Your task to perform on an android device: clear all cookies in the chrome app Image 0: 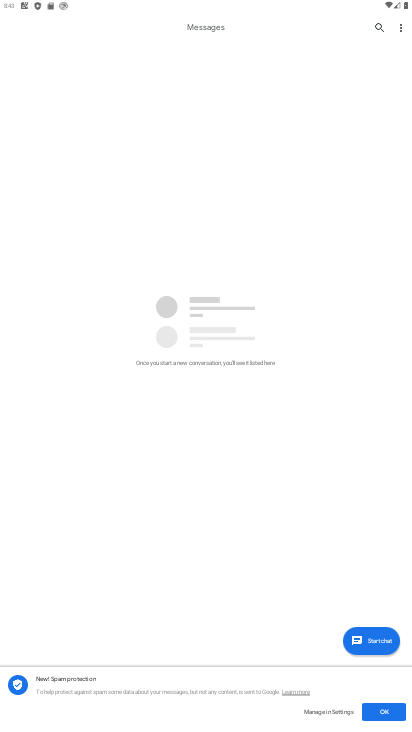
Step 0: press home button
Your task to perform on an android device: clear all cookies in the chrome app Image 1: 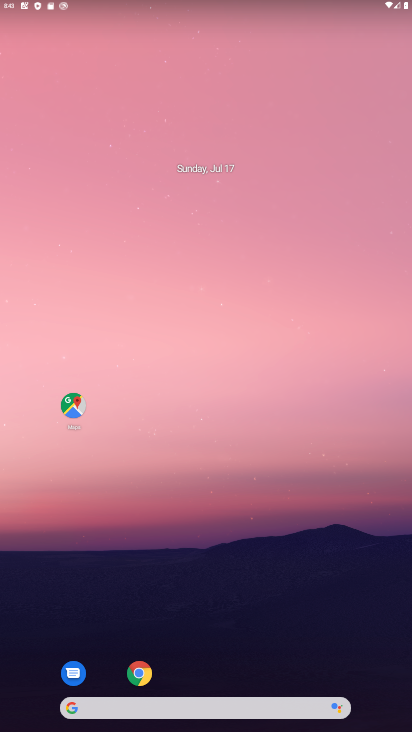
Step 1: drag from (363, 618) to (324, 73)
Your task to perform on an android device: clear all cookies in the chrome app Image 2: 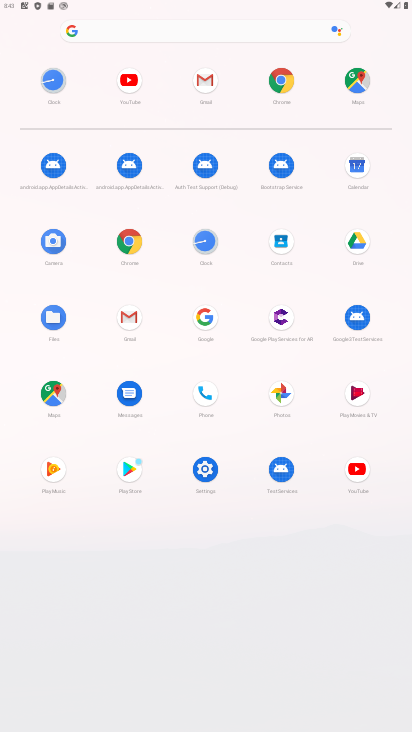
Step 2: click (133, 240)
Your task to perform on an android device: clear all cookies in the chrome app Image 3: 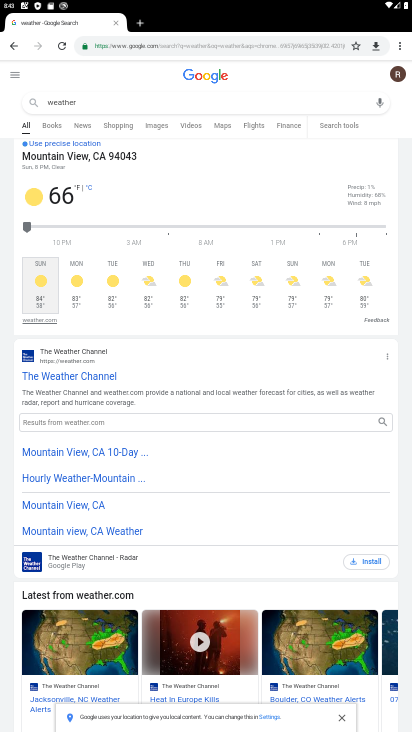
Step 3: drag from (404, 37) to (298, 140)
Your task to perform on an android device: clear all cookies in the chrome app Image 4: 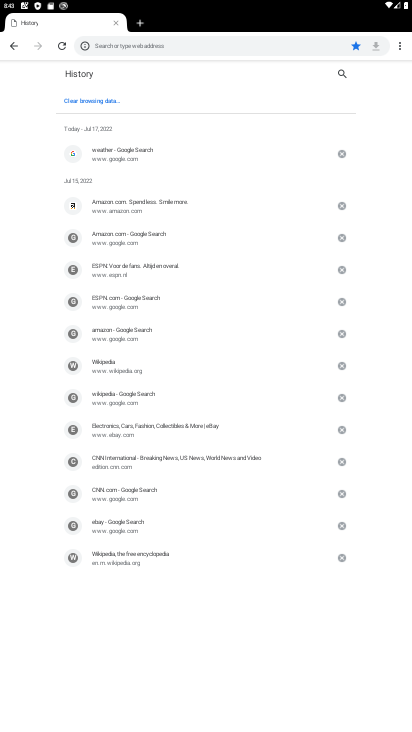
Step 4: click (93, 99)
Your task to perform on an android device: clear all cookies in the chrome app Image 5: 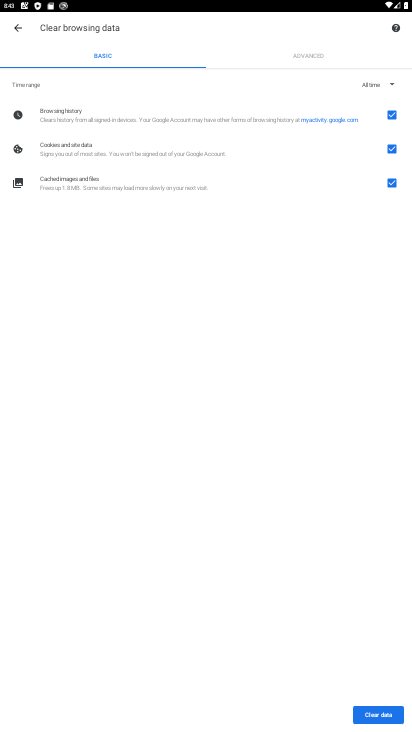
Step 5: click (385, 706)
Your task to perform on an android device: clear all cookies in the chrome app Image 6: 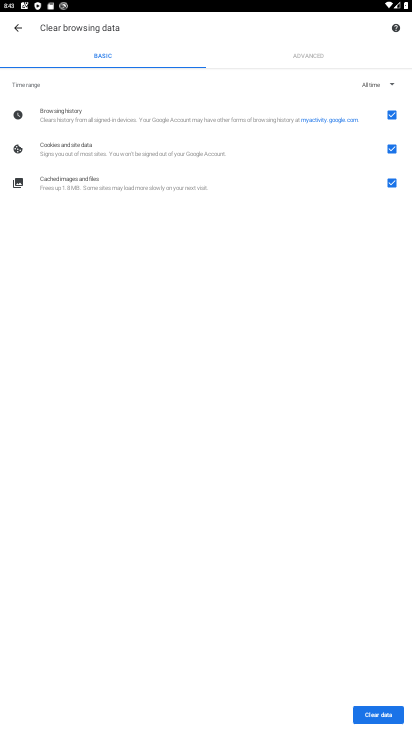
Step 6: click (383, 720)
Your task to perform on an android device: clear all cookies in the chrome app Image 7: 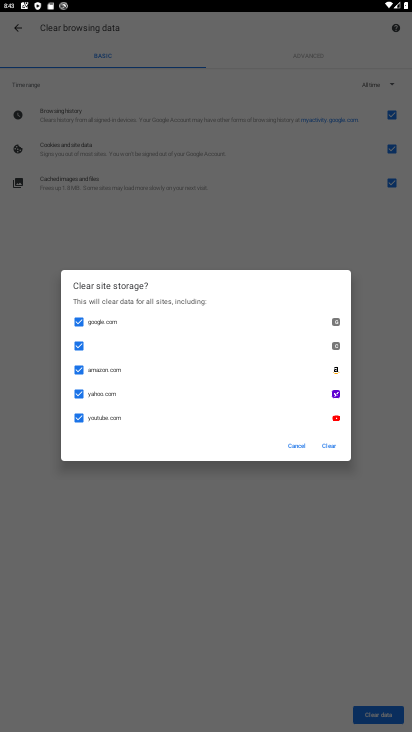
Step 7: click (331, 440)
Your task to perform on an android device: clear all cookies in the chrome app Image 8: 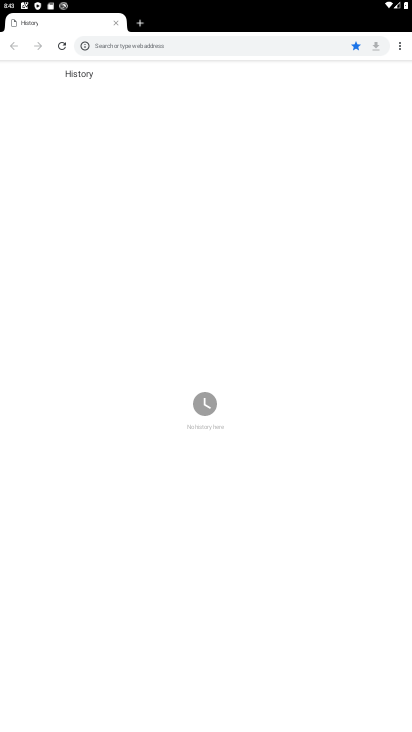
Step 8: task complete